Your task to perform on an android device: create a new album in the google photos Image 0: 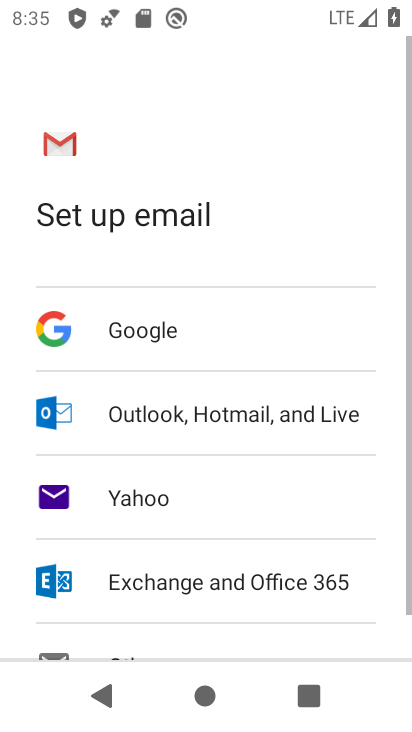
Step 0: press home button
Your task to perform on an android device: create a new album in the google photos Image 1: 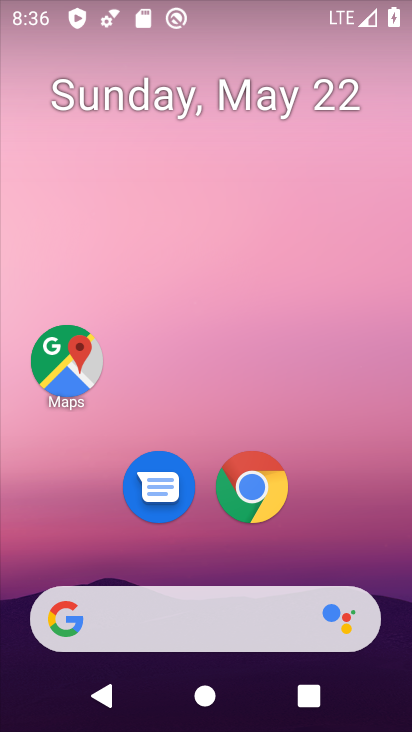
Step 1: drag from (346, 538) to (411, 182)
Your task to perform on an android device: create a new album in the google photos Image 2: 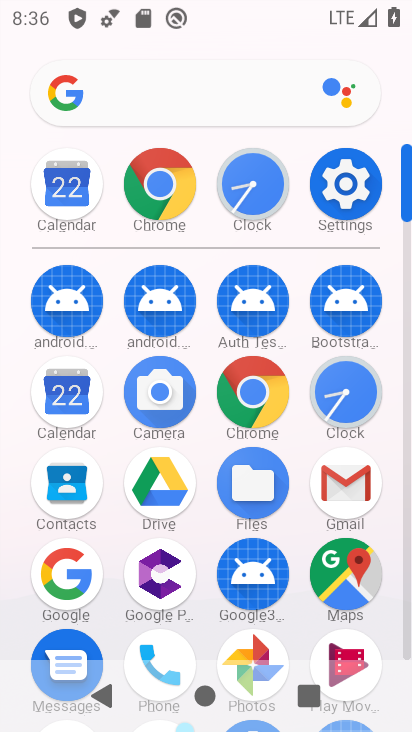
Step 2: drag from (392, 481) to (403, 164)
Your task to perform on an android device: create a new album in the google photos Image 3: 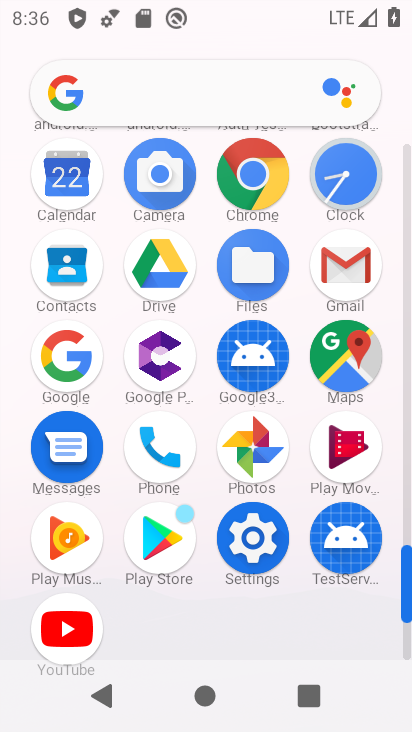
Step 3: click (256, 459)
Your task to perform on an android device: create a new album in the google photos Image 4: 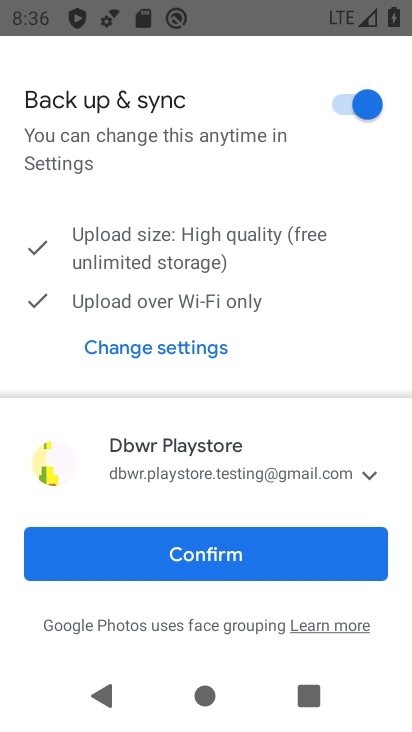
Step 4: click (191, 546)
Your task to perform on an android device: create a new album in the google photos Image 5: 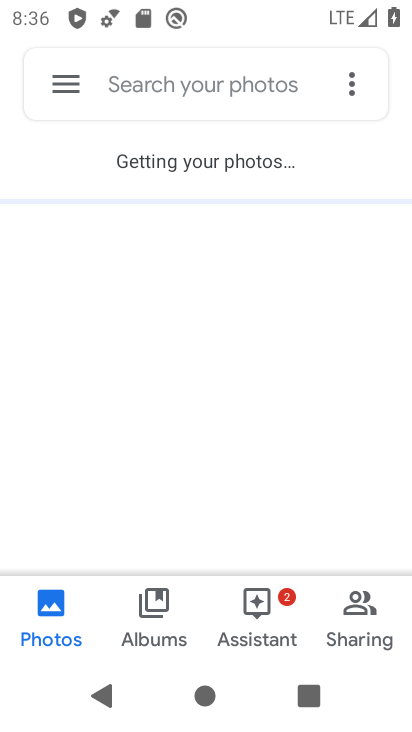
Step 5: click (147, 630)
Your task to perform on an android device: create a new album in the google photos Image 6: 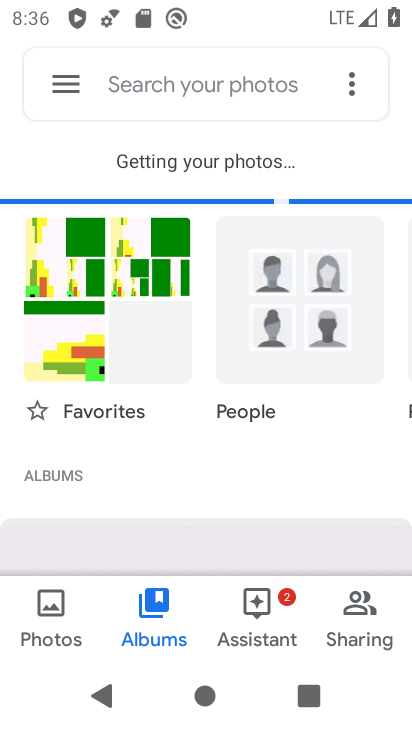
Step 6: task complete